Your task to perform on an android device: Open calendar and show me the second week of next month Image 0: 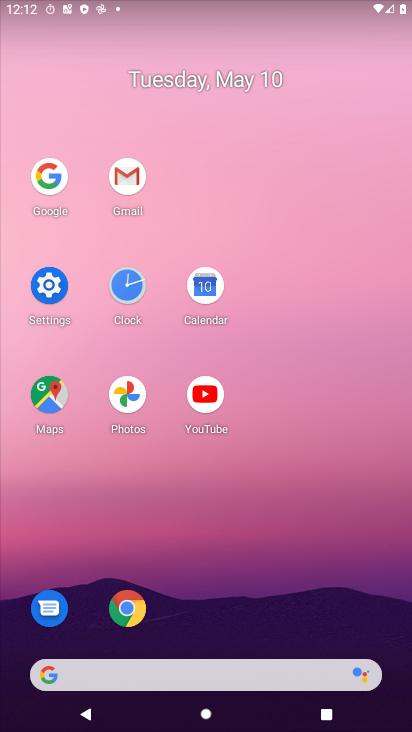
Step 0: click (213, 298)
Your task to perform on an android device: Open calendar and show me the second week of next month Image 1: 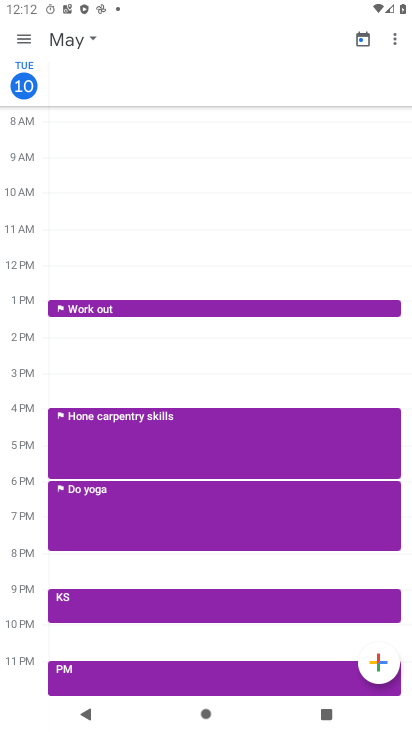
Step 1: click (94, 47)
Your task to perform on an android device: Open calendar and show me the second week of next month Image 2: 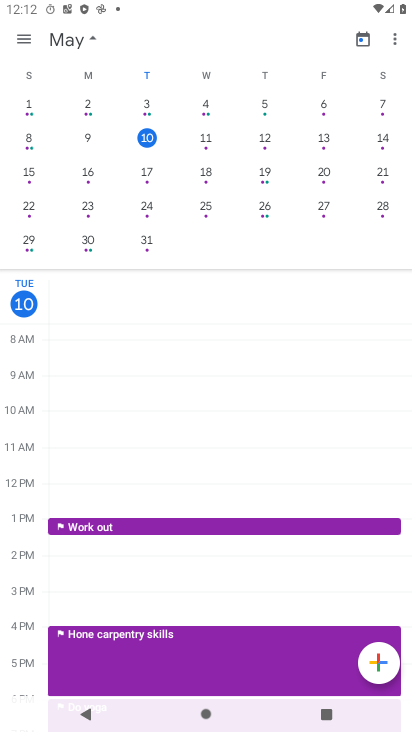
Step 2: drag from (392, 152) to (1, 150)
Your task to perform on an android device: Open calendar and show me the second week of next month Image 3: 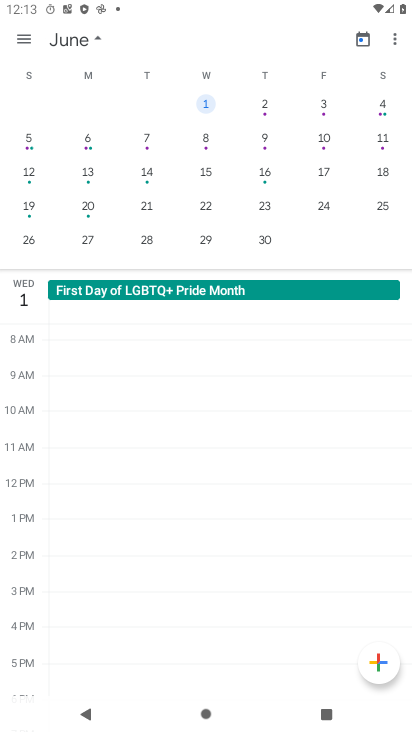
Step 3: click (28, 45)
Your task to perform on an android device: Open calendar and show me the second week of next month Image 4: 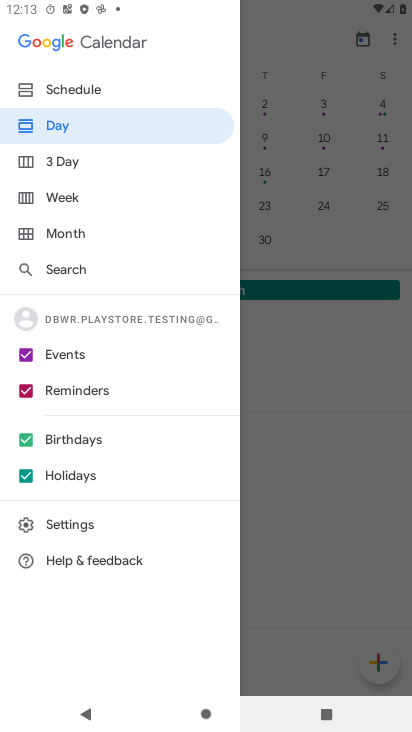
Step 4: click (86, 200)
Your task to perform on an android device: Open calendar and show me the second week of next month Image 5: 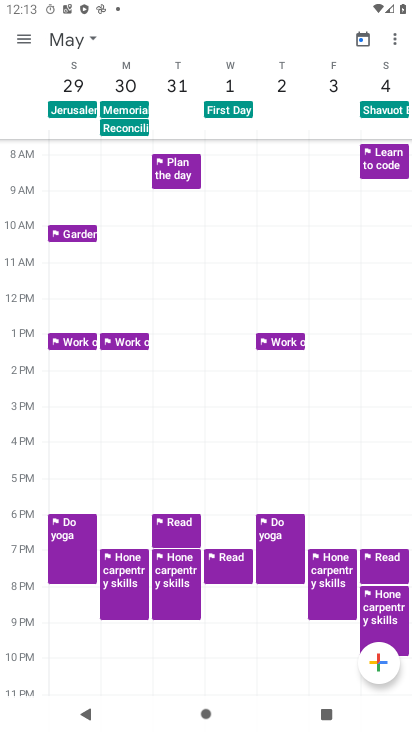
Step 5: task complete